Your task to perform on an android device: turn on sleep mode Image 0: 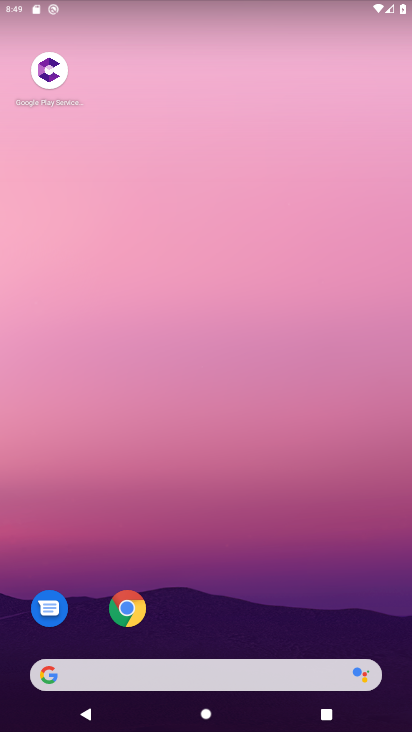
Step 0: drag from (274, 568) to (262, 156)
Your task to perform on an android device: turn on sleep mode Image 1: 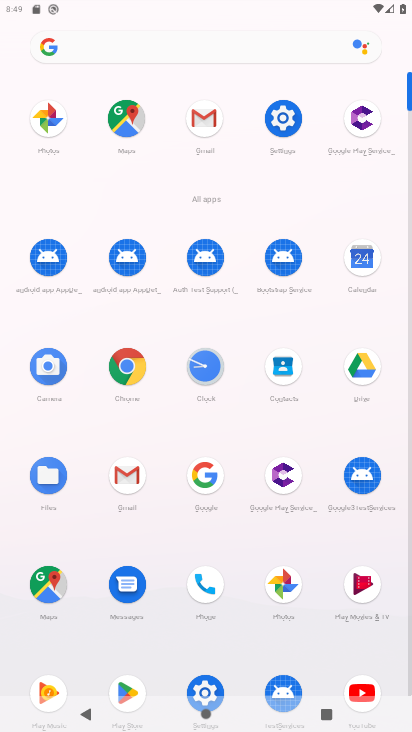
Step 1: click (277, 136)
Your task to perform on an android device: turn on sleep mode Image 2: 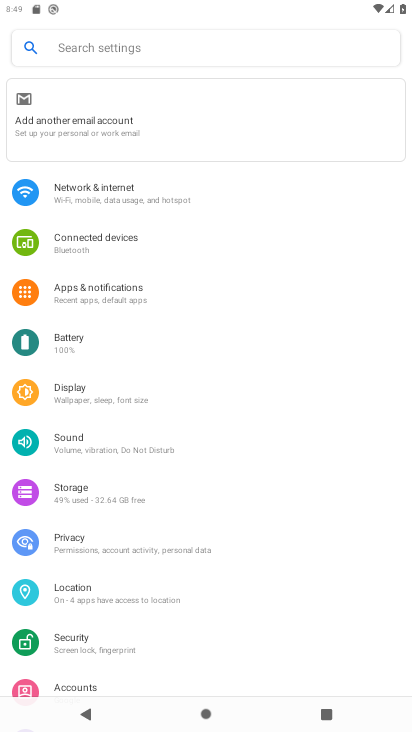
Step 2: click (149, 405)
Your task to perform on an android device: turn on sleep mode Image 3: 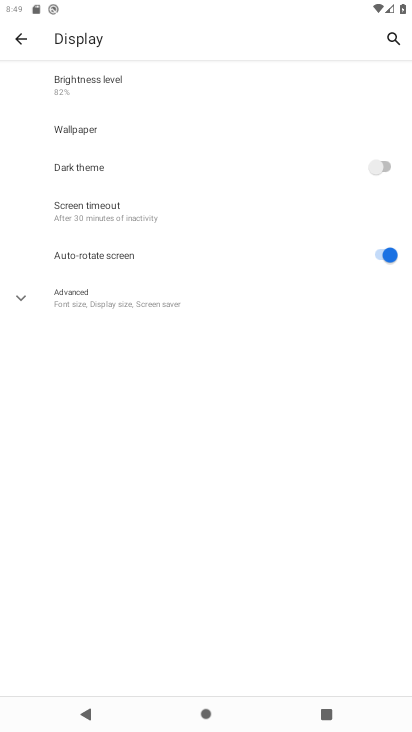
Step 3: click (190, 302)
Your task to perform on an android device: turn on sleep mode Image 4: 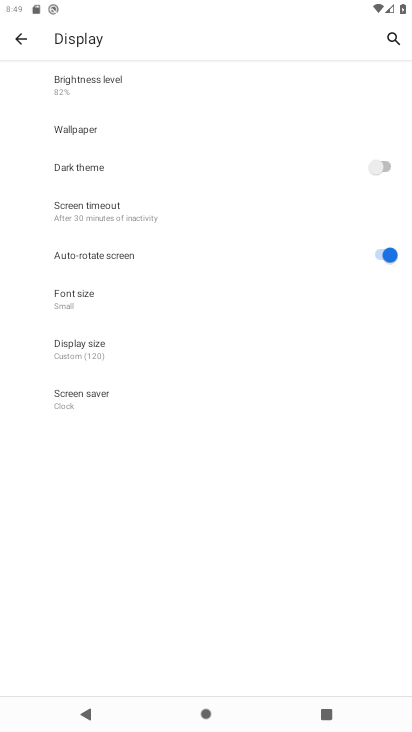
Step 4: task complete